Your task to perform on an android device: see tabs open on other devices in the chrome app Image 0: 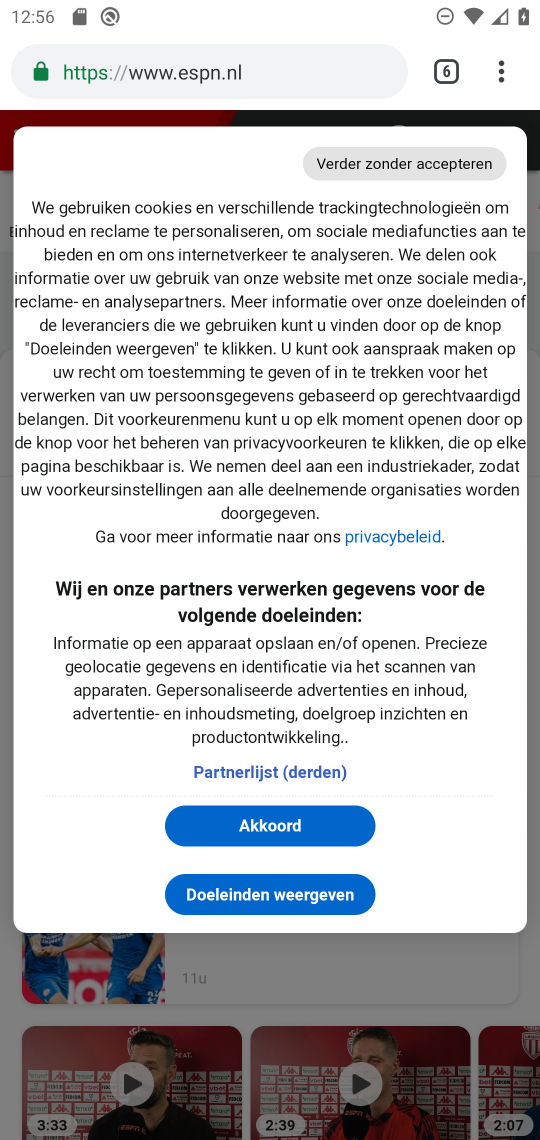
Step 0: click (504, 77)
Your task to perform on an android device: see tabs open on other devices in the chrome app Image 1: 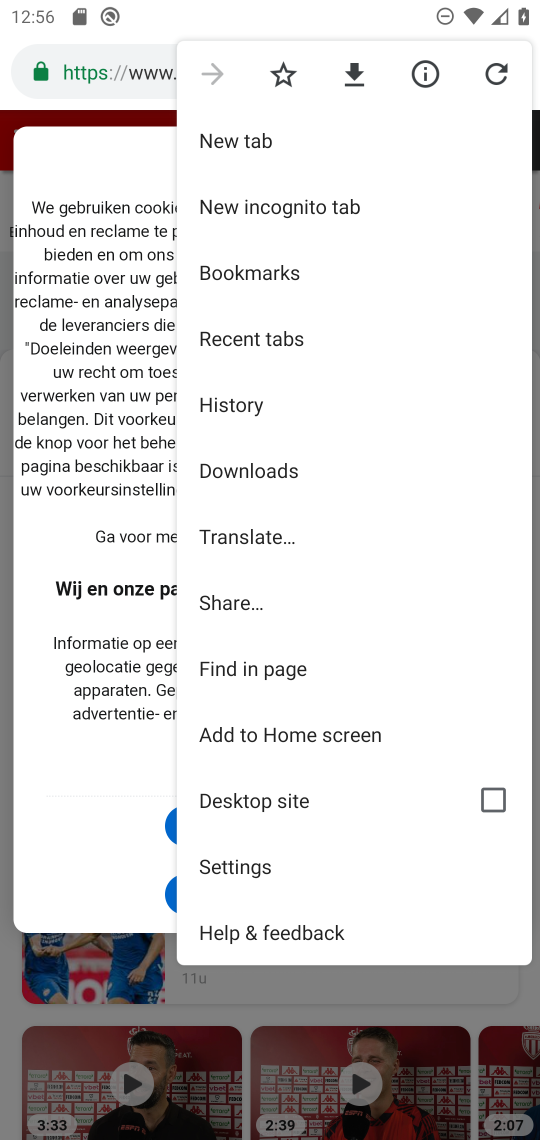
Step 1: click (323, 339)
Your task to perform on an android device: see tabs open on other devices in the chrome app Image 2: 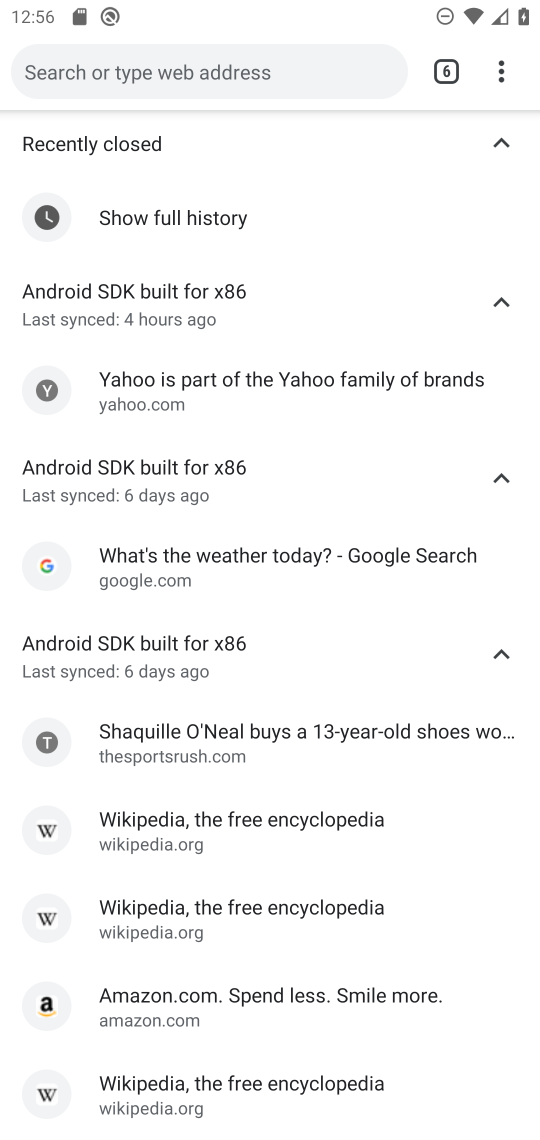
Step 2: task complete